Your task to perform on an android device: change alarm snooze length Image 0: 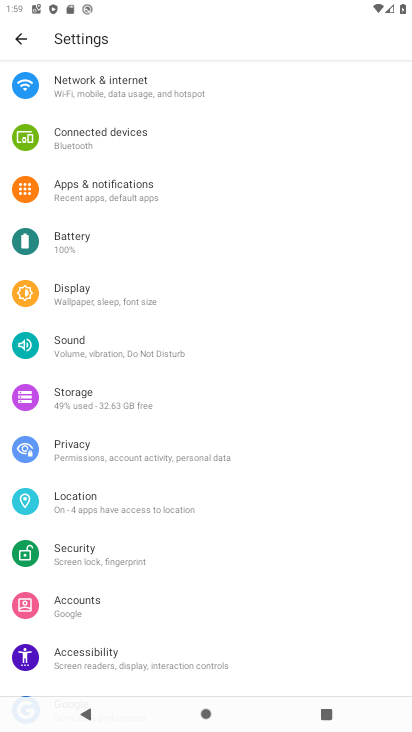
Step 0: press home button
Your task to perform on an android device: change alarm snooze length Image 1: 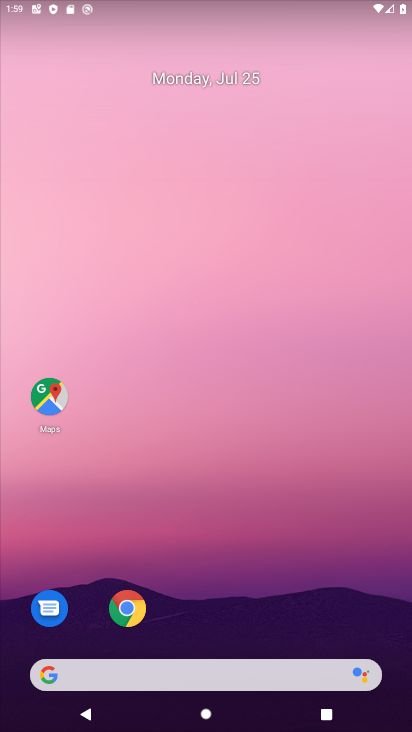
Step 1: drag from (259, 538) to (229, 191)
Your task to perform on an android device: change alarm snooze length Image 2: 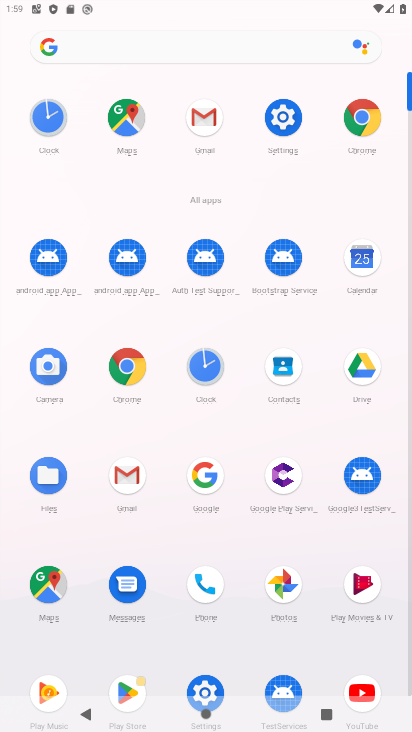
Step 2: click (203, 369)
Your task to perform on an android device: change alarm snooze length Image 3: 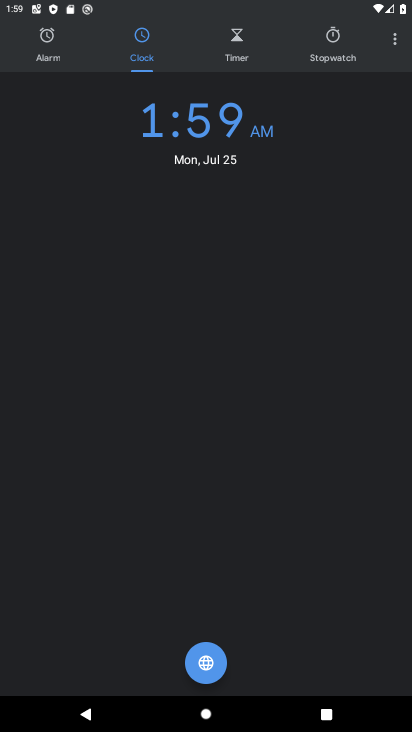
Step 3: click (395, 38)
Your task to perform on an android device: change alarm snooze length Image 4: 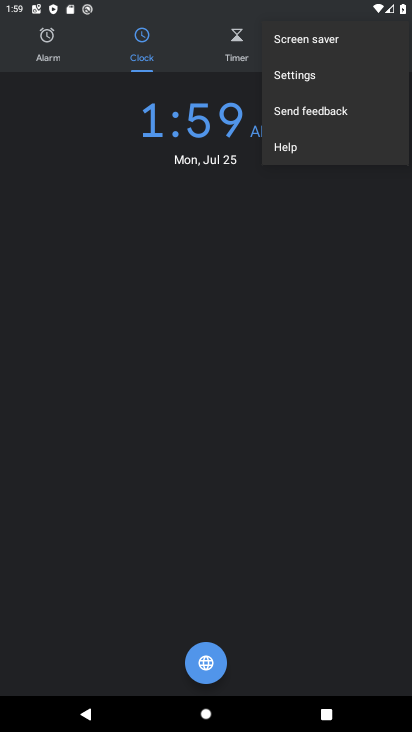
Step 4: click (39, 46)
Your task to perform on an android device: change alarm snooze length Image 5: 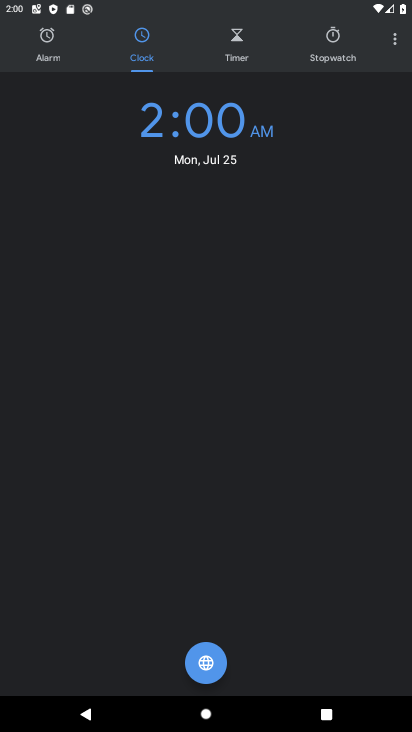
Step 5: click (392, 40)
Your task to perform on an android device: change alarm snooze length Image 6: 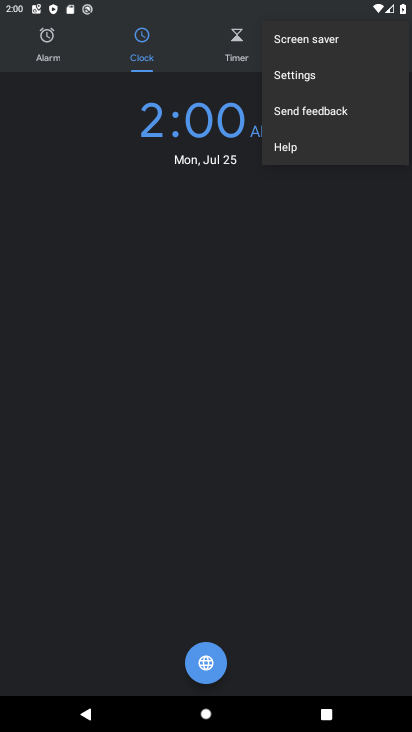
Step 6: click (307, 77)
Your task to perform on an android device: change alarm snooze length Image 7: 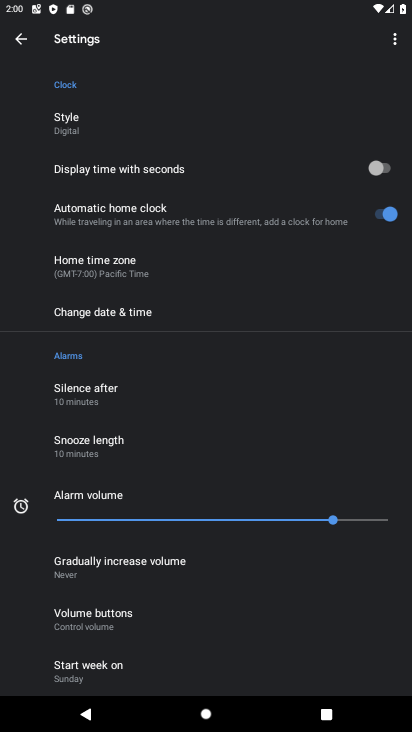
Step 7: click (114, 448)
Your task to perform on an android device: change alarm snooze length Image 8: 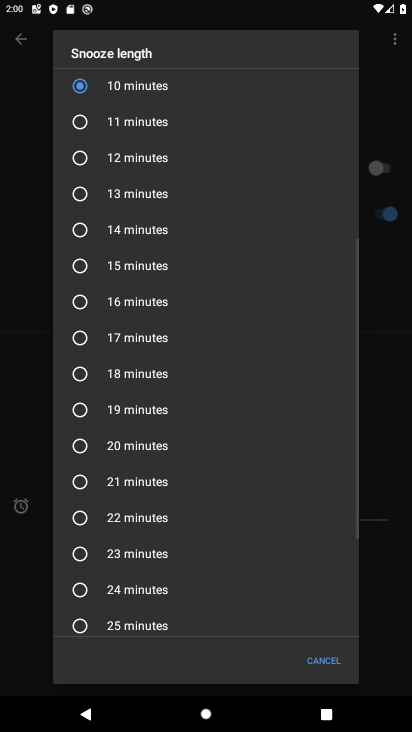
Step 8: click (120, 510)
Your task to perform on an android device: change alarm snooze length Image 9: 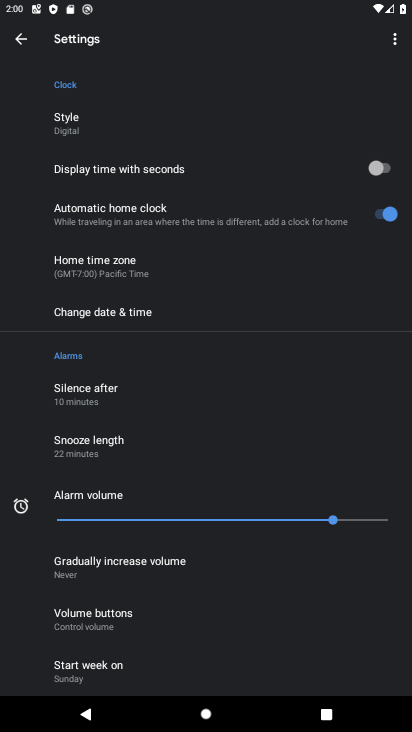
Step 9: task complete